Your task to perform on an android device: turn on bluetooth scan Image 0: 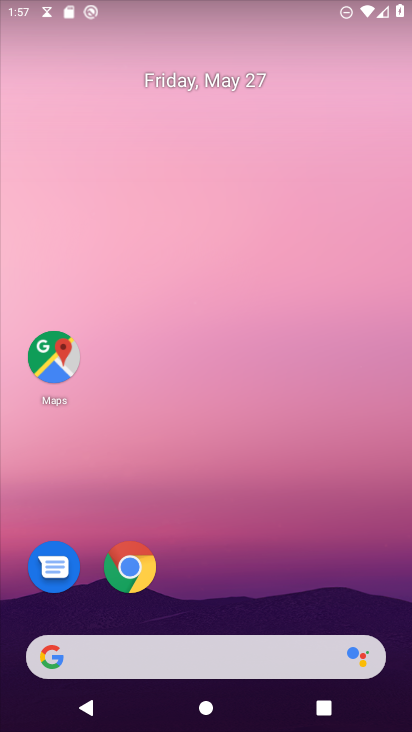
Step 0: drag from (232, 621) to (189, 259)
Your task to perform on an android device: turn on bluetooth scan Image 1: 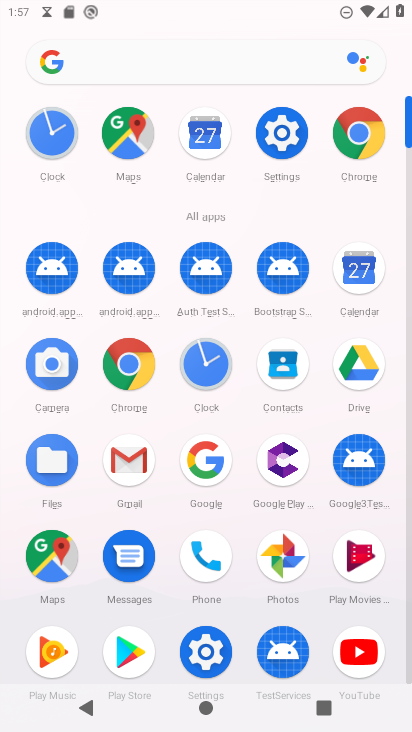
Step 1: click (292, 138)
Your task to perform on an android device: turn on bluetooth scan Image 2: 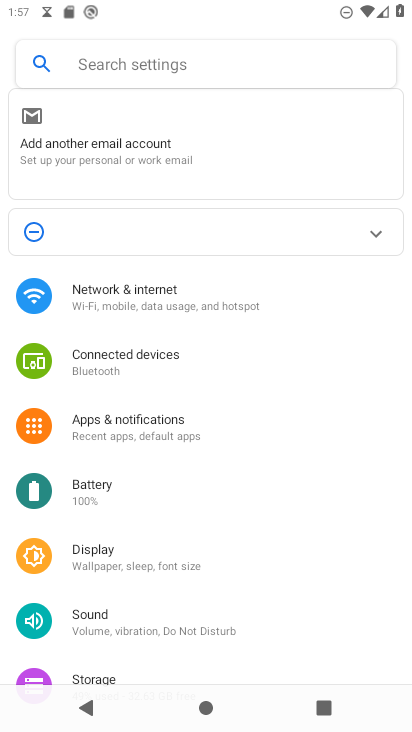
Step 2: drag from (197, 619) to (159, 164)
Your task to perform on an android device: turn on bluetooth scan Image 3: 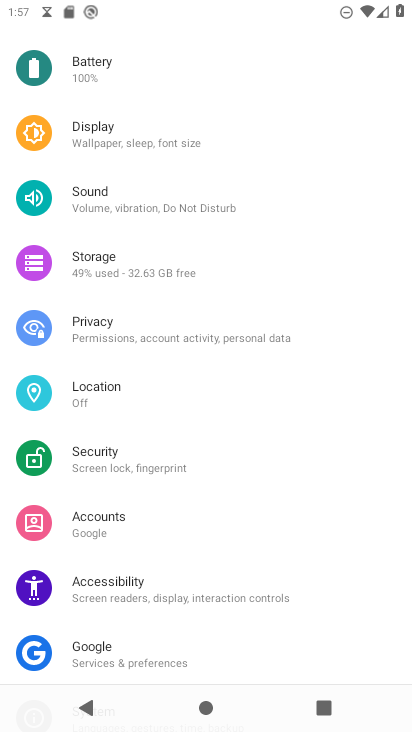
Step 3: click (171, 381)
Your task to perform on an android device: turn on bluetooth scan Image 4: 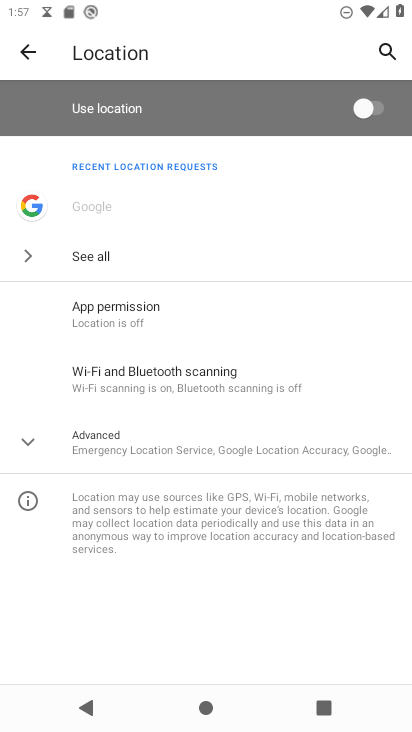
Step 4: click (193, 387)
Your task to perform on an android device: turn on bluetooth scan Image 5: 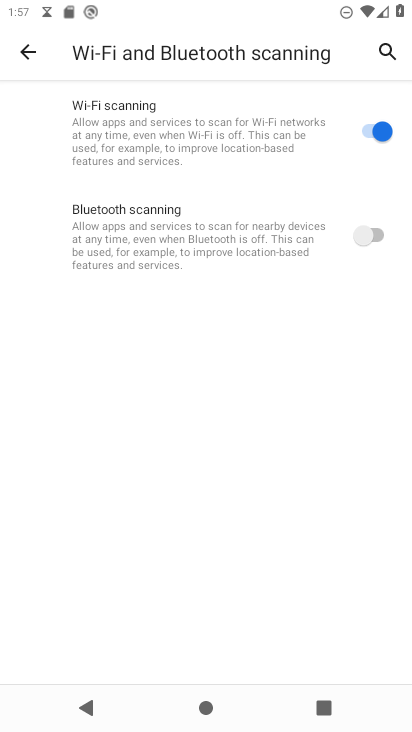
Step 5: click (378, 247)
Your task to perform on an android device: turn on bluetooth scan Image 6: 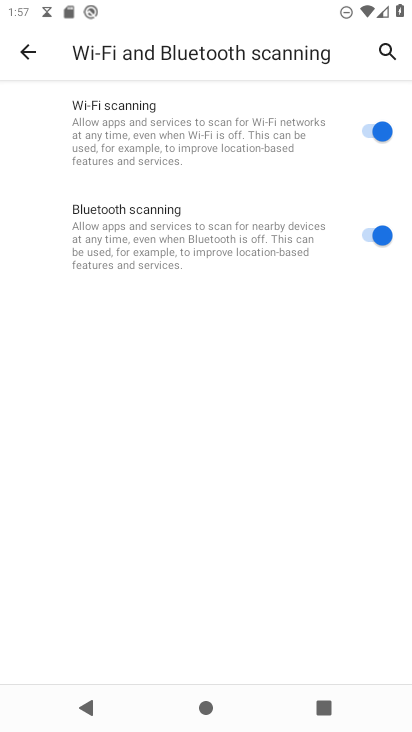
Step 6: task complete